Your task to perform on an android device: toggle sleep mode Image 0: 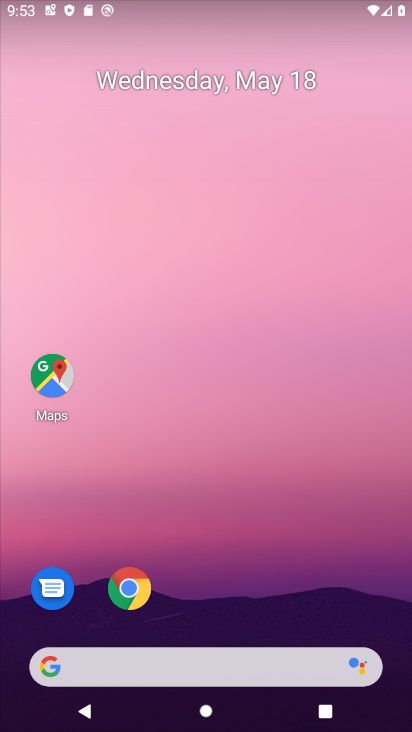
Step 0: drag from (278, 692) to (337, 81)
Your task to perform on an android device: toggle sleep mode Image 1: 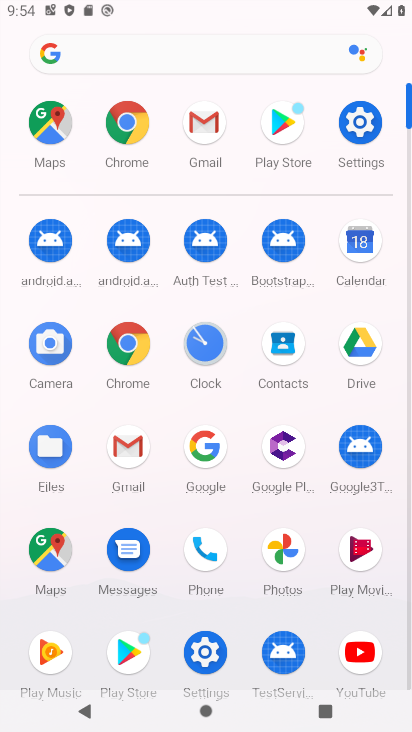
Step 1: click (364, 132)
Your task to perform on an android device: toggle sleep mode Image 2: 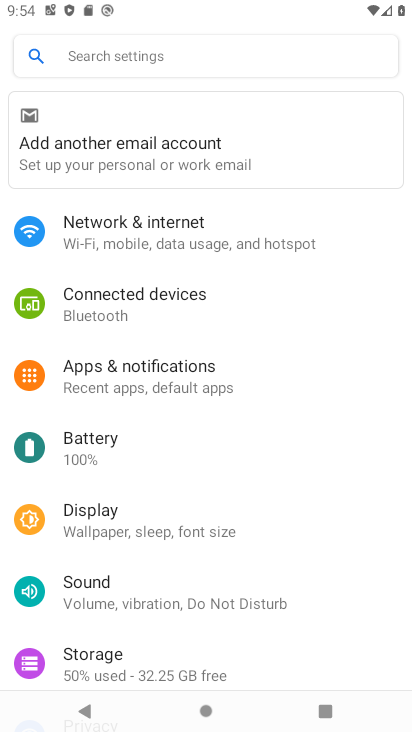
Step 2: click (198, 66)
Your task to perform on an android device: toggle sleep mode Image 3: 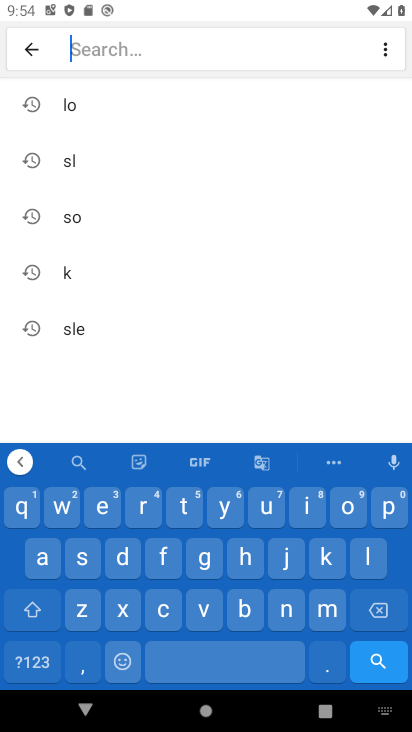
Step 3: click (79, 556)
Your task to perform on an android device: toggle sleep mode Image 4: 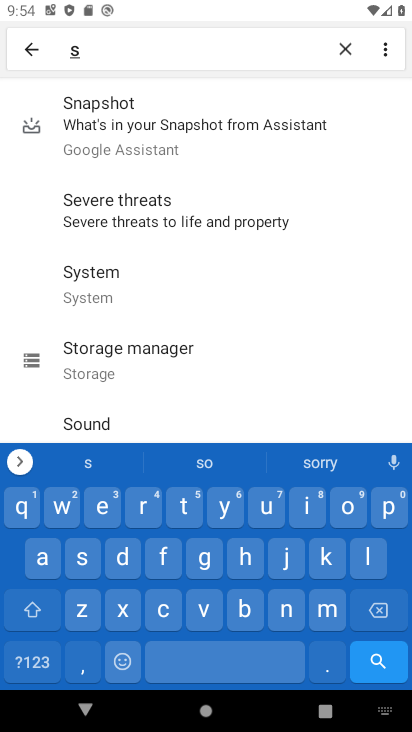
Step 4: click (370, 558)
Your task to perform on an android device: toggle sleep mode Image 5: 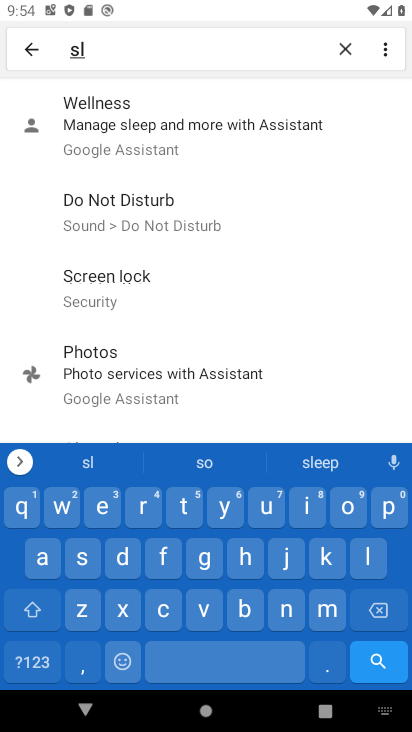
Step 5: click (158, 130)
Your task to perform on an android device: toggle sleep mode Image 6: 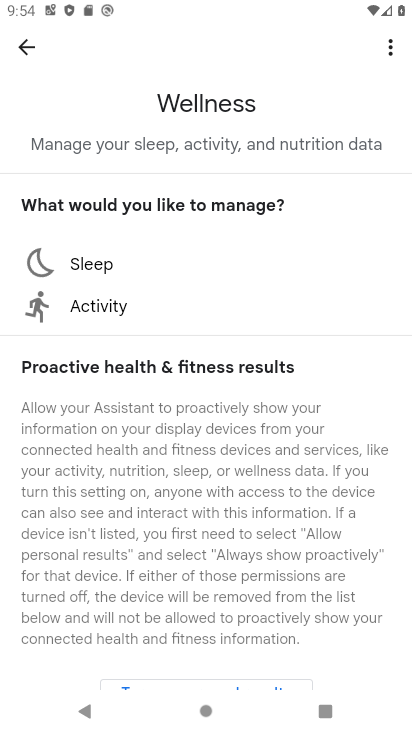
Step 6: click (111, 257)
Your task to perform on an android device: toggle sleep mode Image 7: 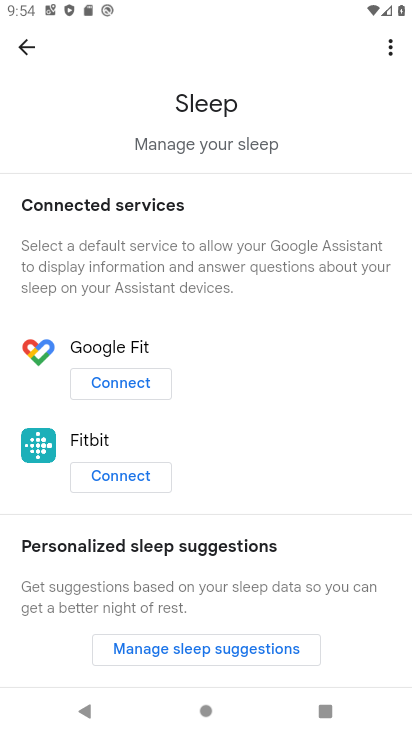
Step 7: task complete